Your task to perform on an android device: turn off translation in the chrome app Image 0: 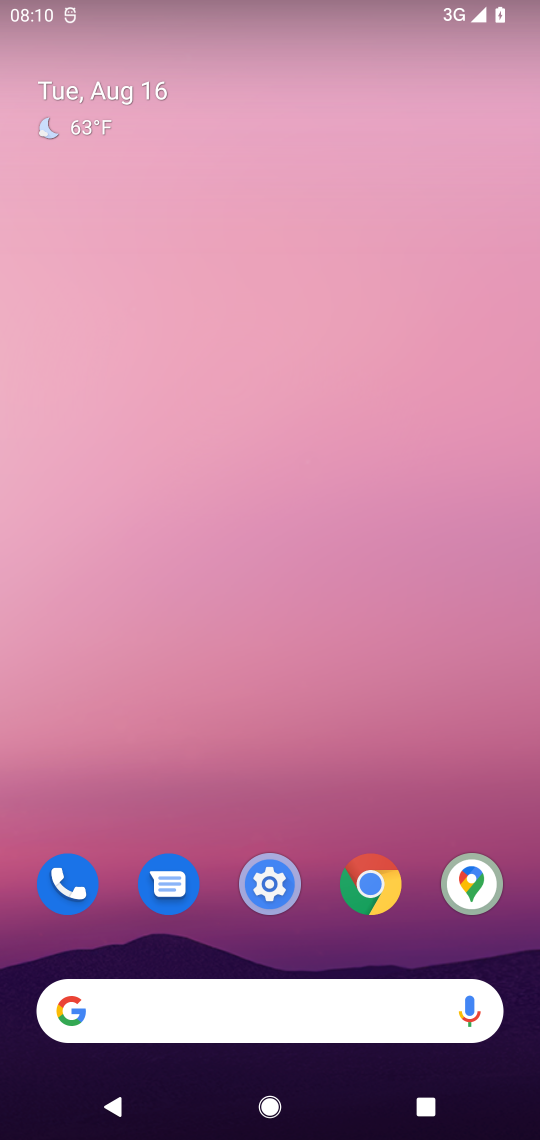
Step 0: press home button
Your task to perform on an android device: turn off translation in the chrome app Image 1: 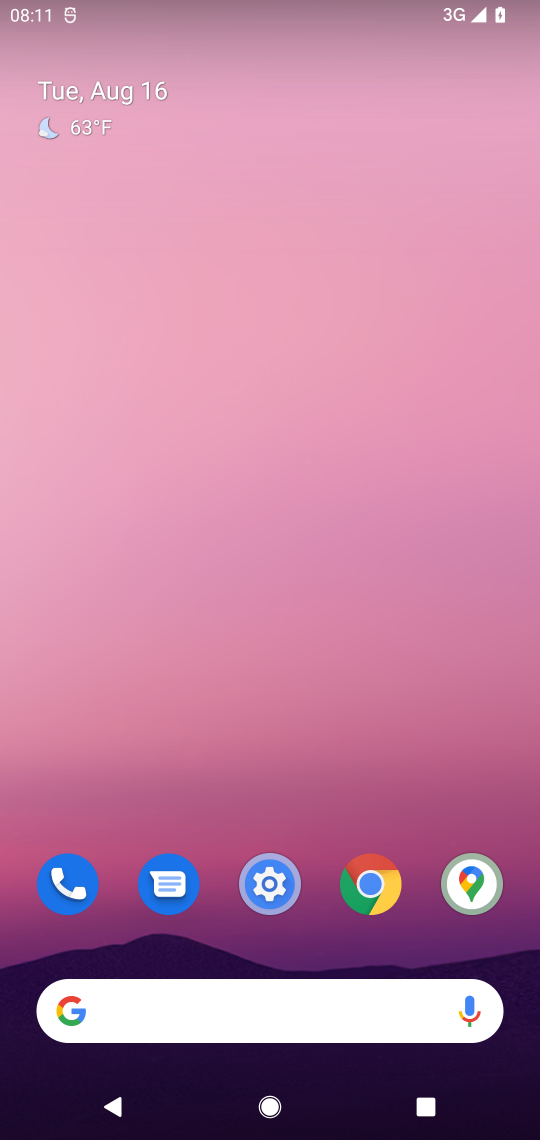
Step 1: click (368, 887)
Your task to perform on an android device: turn off translation in the chrome app Image 2: 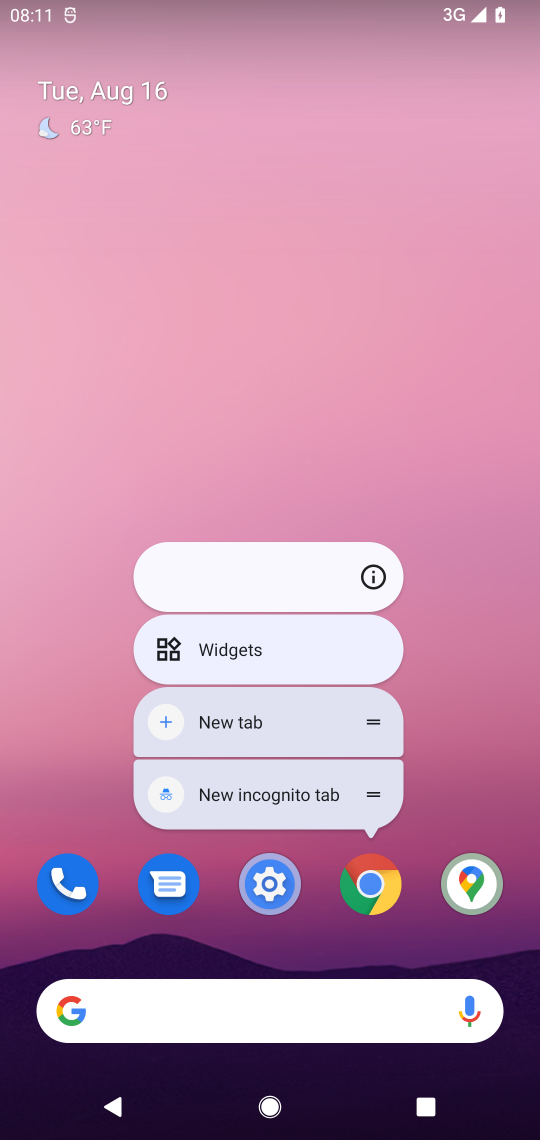
Step 2: click (368, 887)
Your task to perform on an android device: turn off translation in the chrome app Image 3: 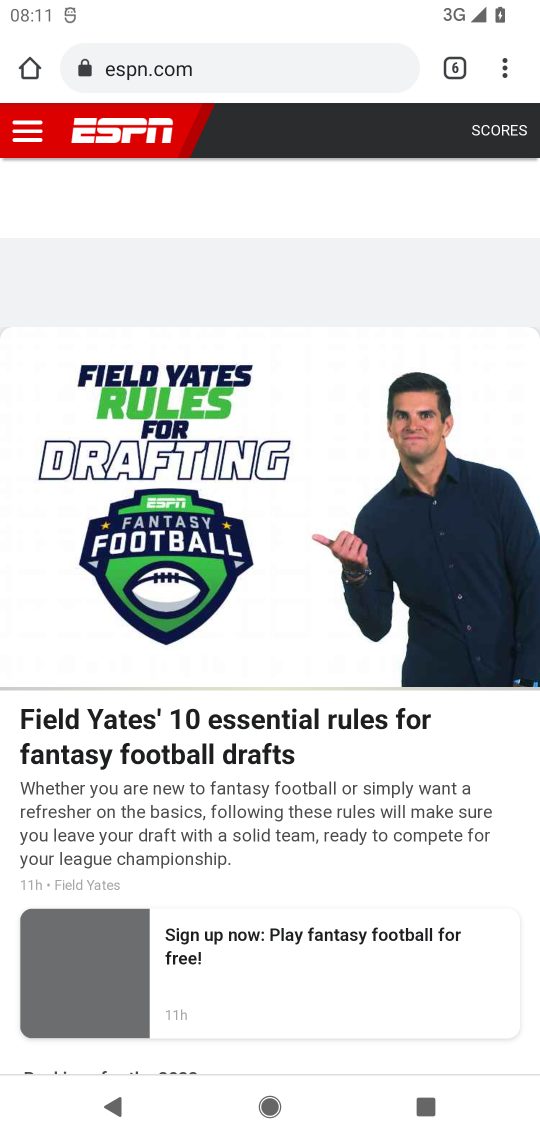
Step 3: drag from (502, 68) to (316, 832)
Your task to perform on an android device: turn off translation in the chrome app Image 4: 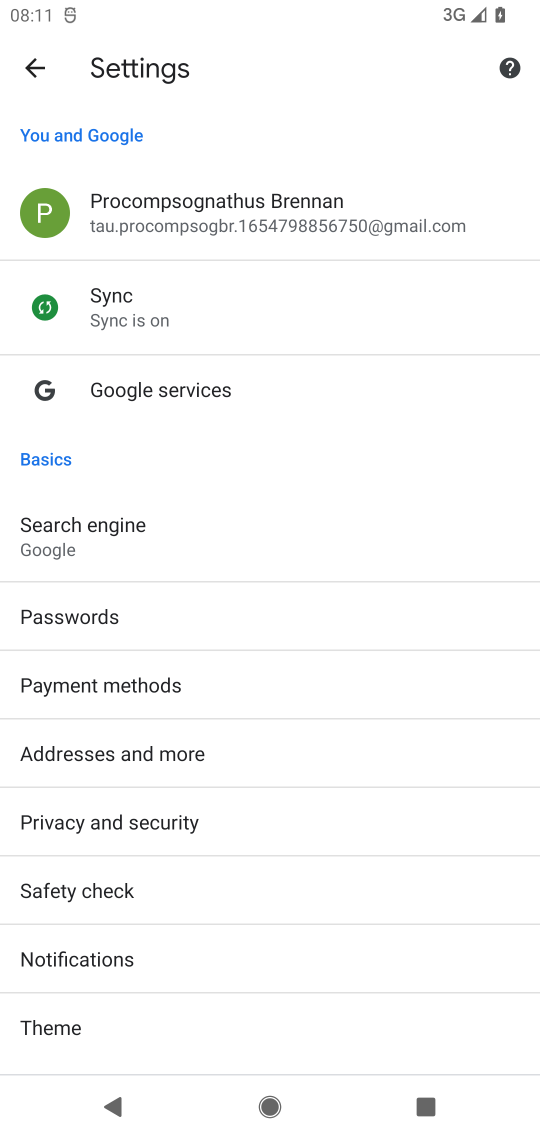
Step 4: drag from (230, 906) to (241, 398)
Your task to perform on an android device: turn off translation in the chrome app Image 5: 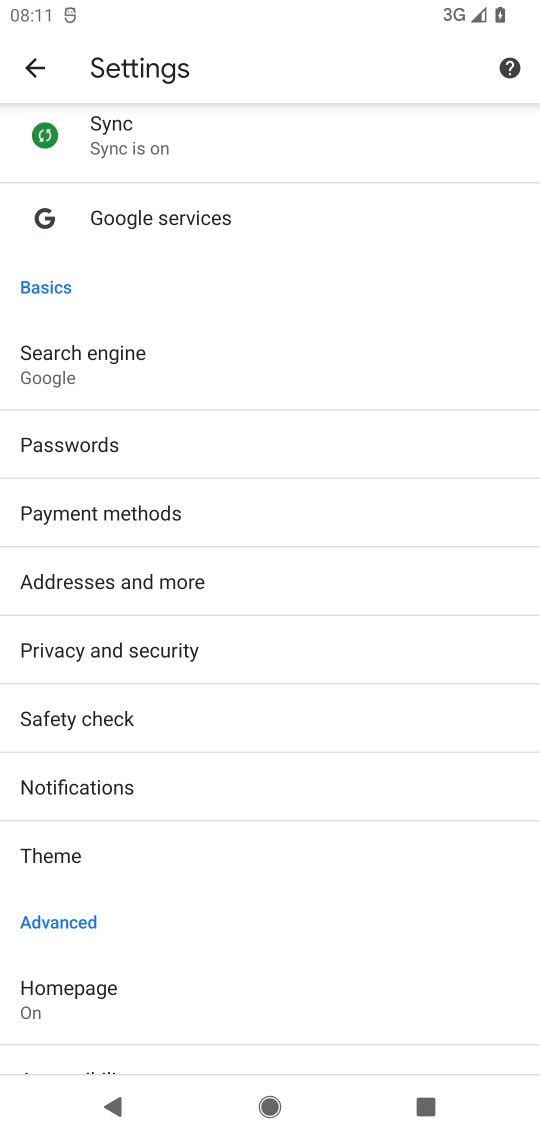
Step 5: drag from (166, 912) to (255, 280)
Your task to perform on an android device: turn off translation in the chrome app Image 6: 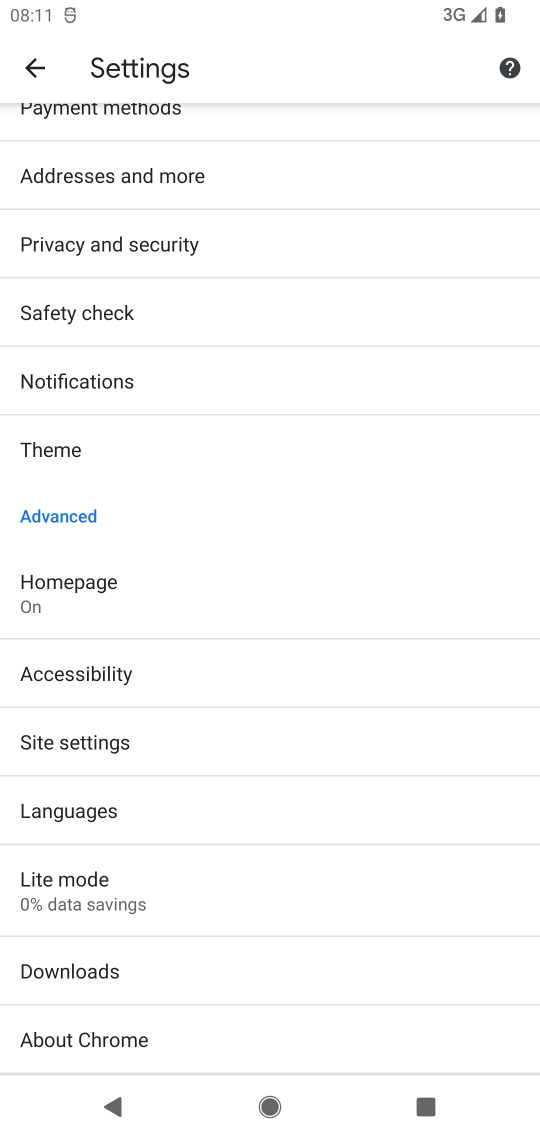
Step 6: click (145, 801)
Your task to perform on an android device: turn off translation in the chrome app Image 7: 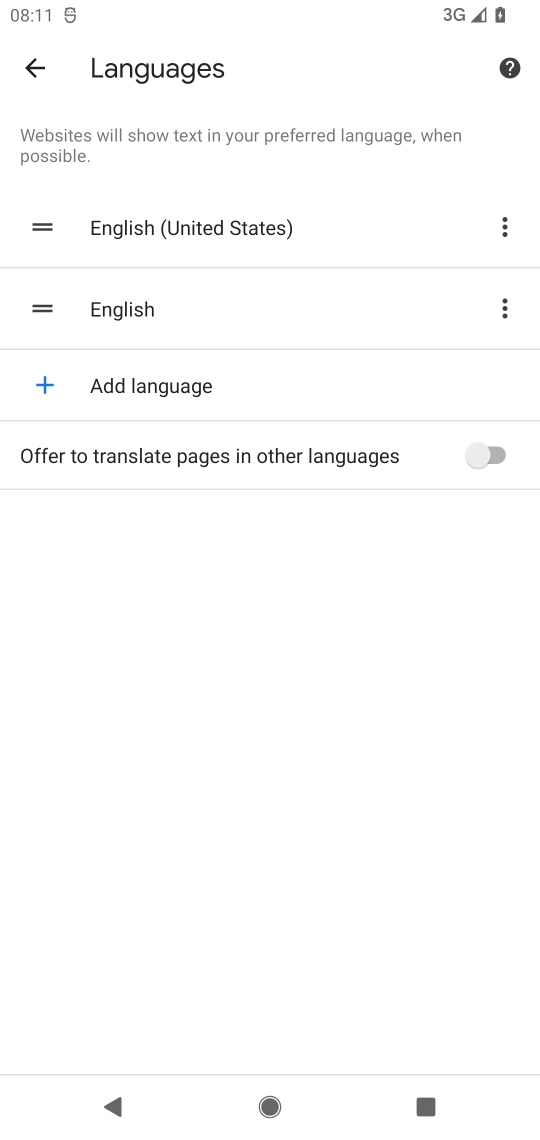
Step 7: task complete